Your task to perform on an android device: uninstall "Clock" Image 0: 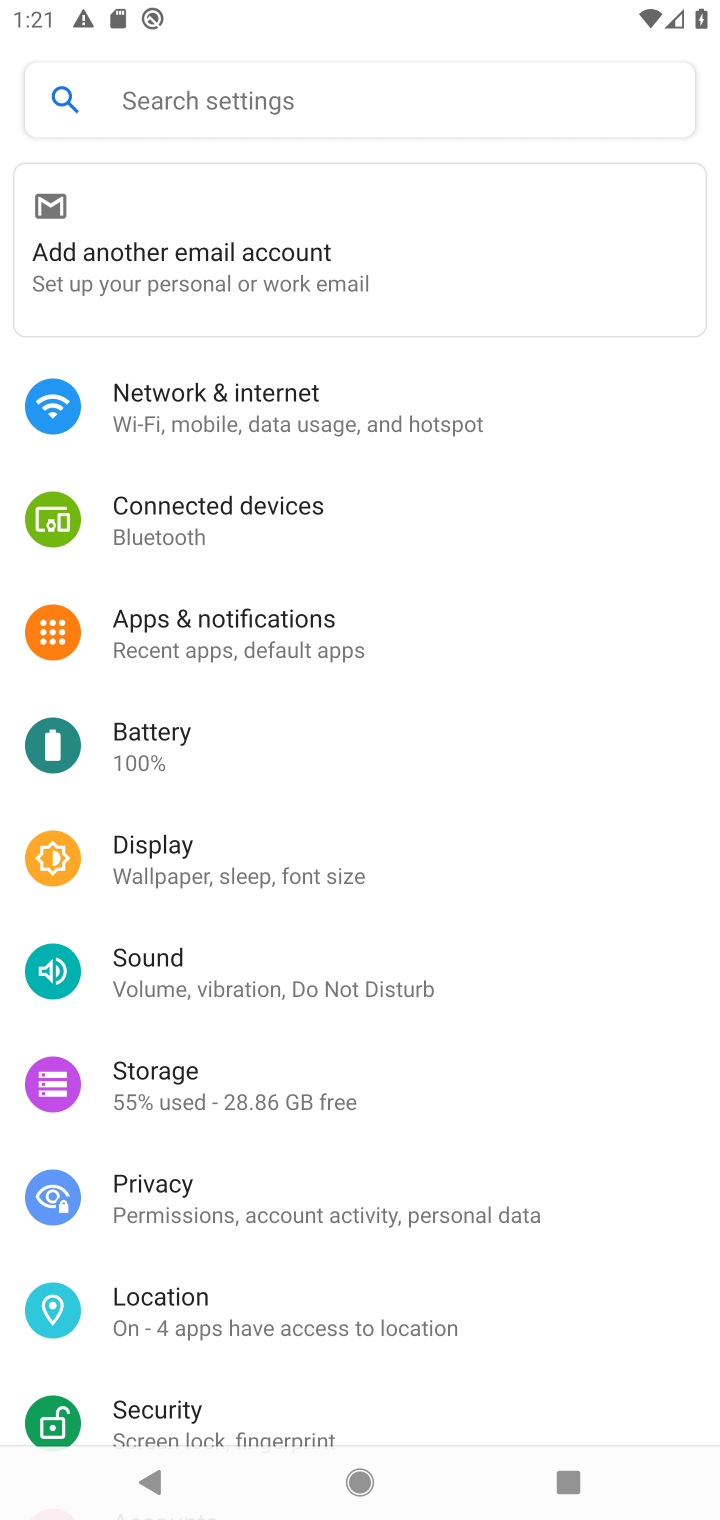
Step 0: press home button
Your task to perform on an android device: uninstall "Clock" Image 1: 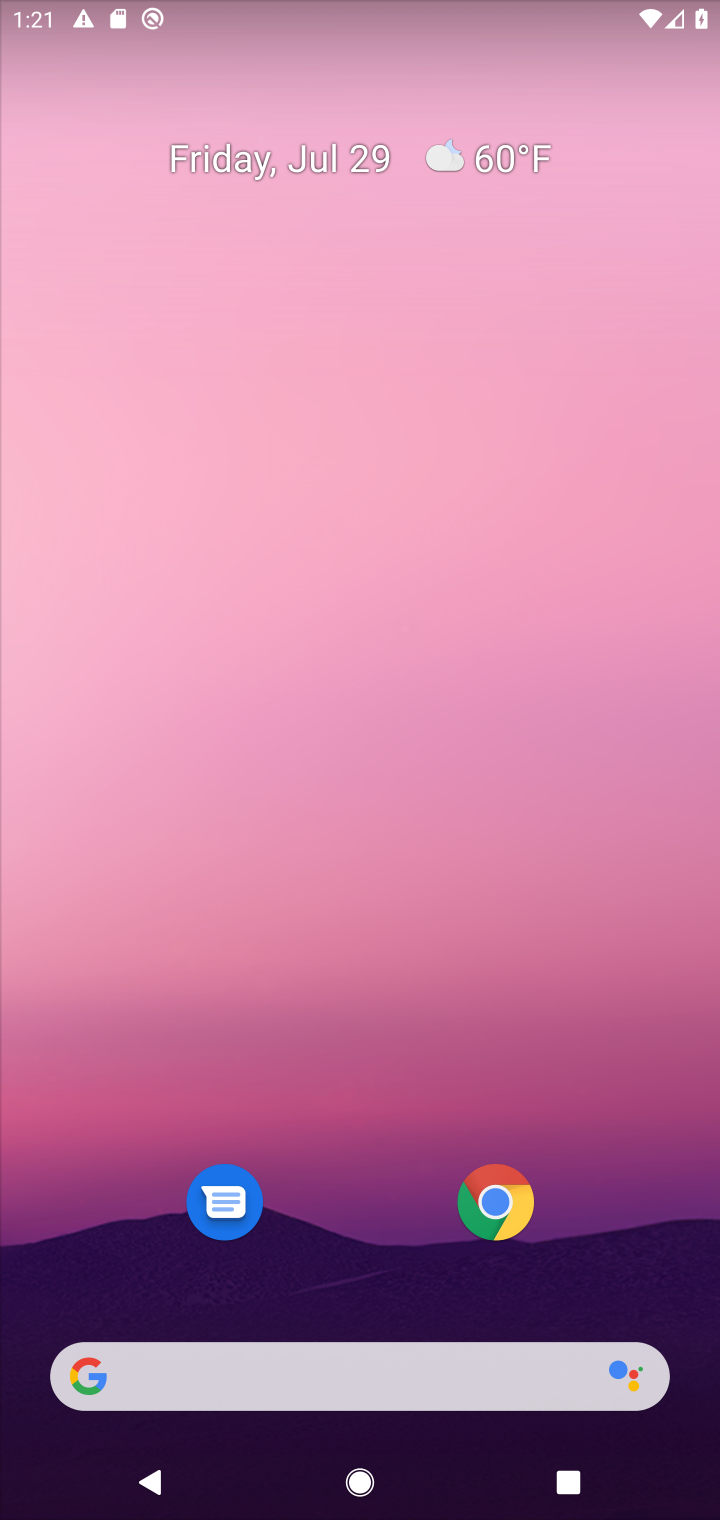
Step 1: drag from (385, 1299) to (322, 144)
Your task to perform on an android device: uninstall "Clock" Image 2: 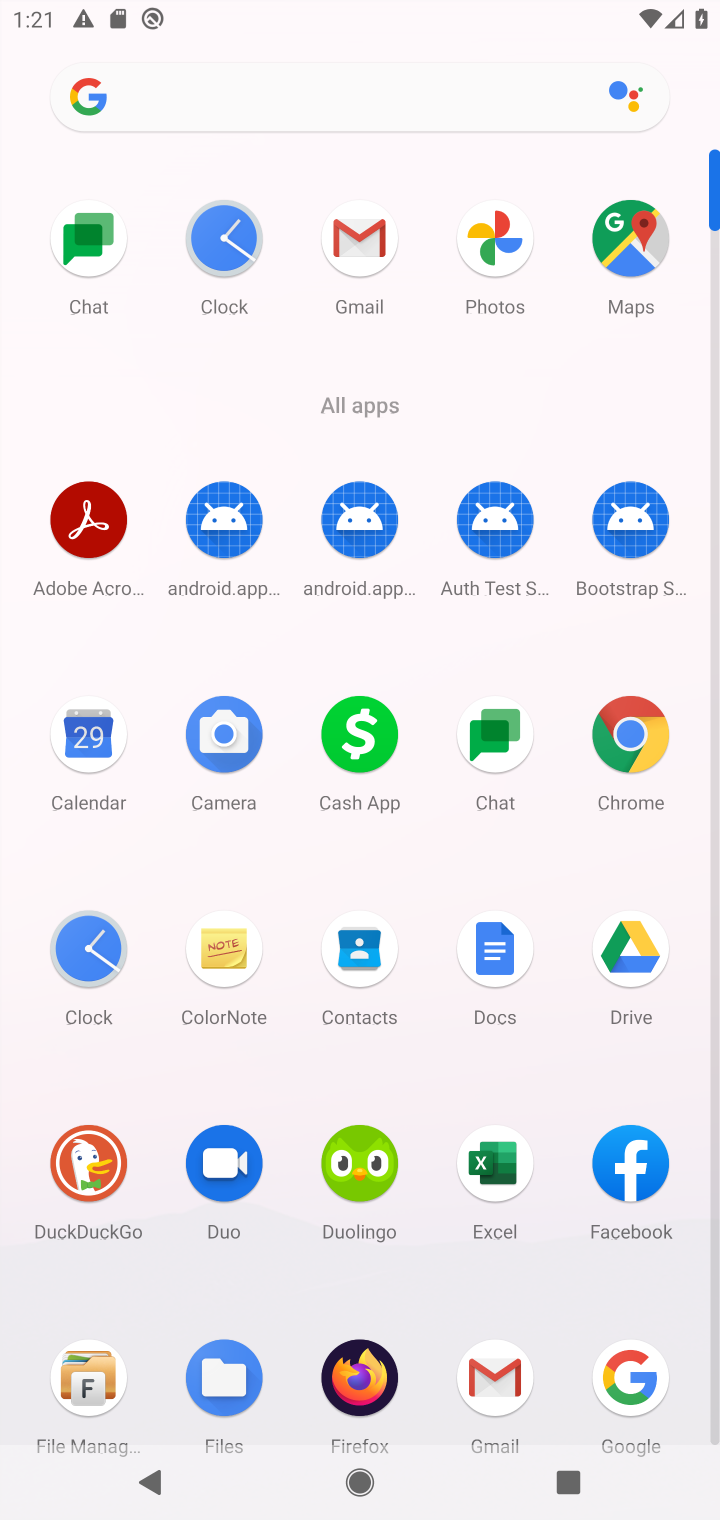
Step 2: click (237, 240)
Your task to perform on an android device: uninstall "Clock" Image 3: 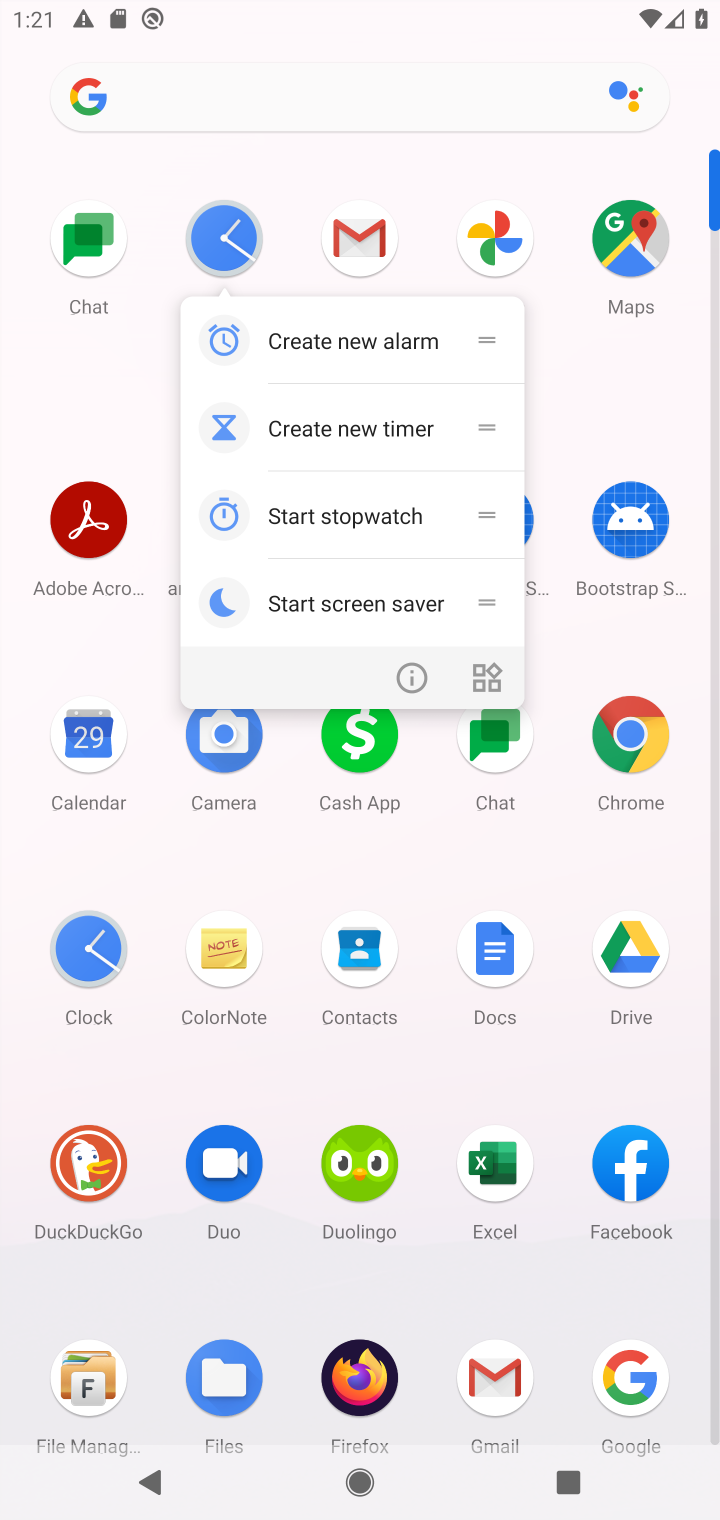
Step 3: click (417, 675)
Your task to perform on an android device: uninstall "Clock" Image 4: 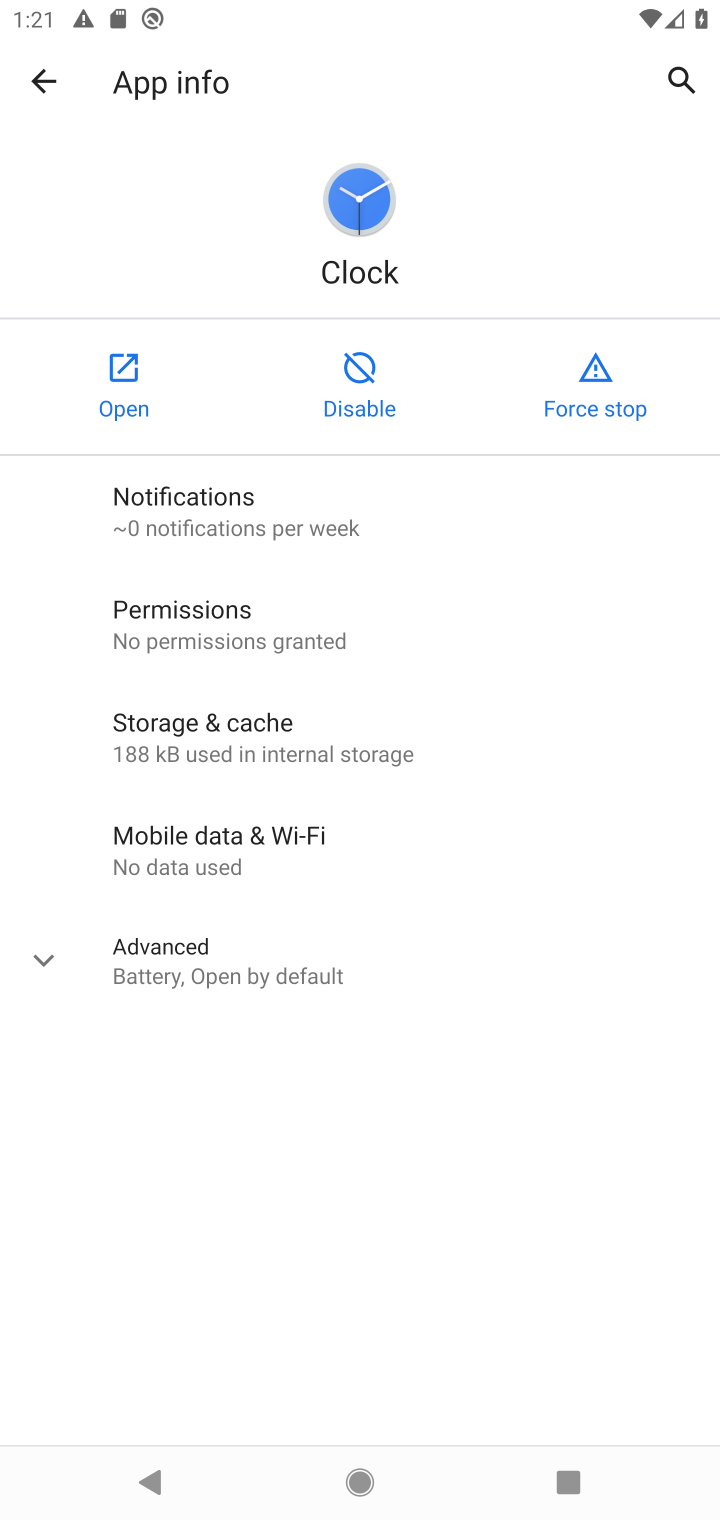
Step 4: task complete